Your task to perform on an android device: Open the calendar app, open the side menu, and click the "Day" option Image 0: 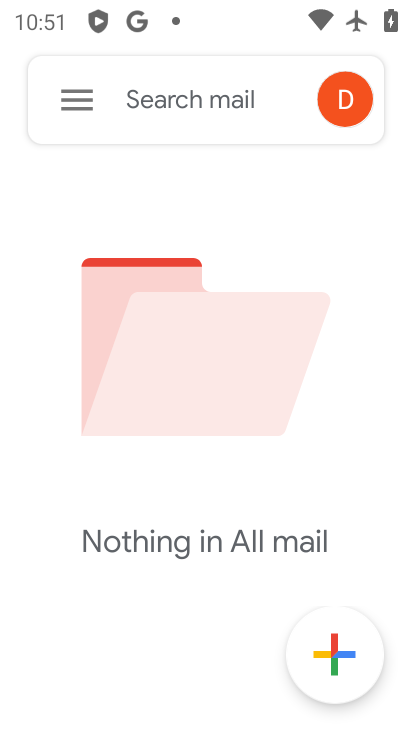
Step 0: press home button
Your task to perform on an android device: Open the calendar app, open the side menu, and click the "Day" option Image 1: 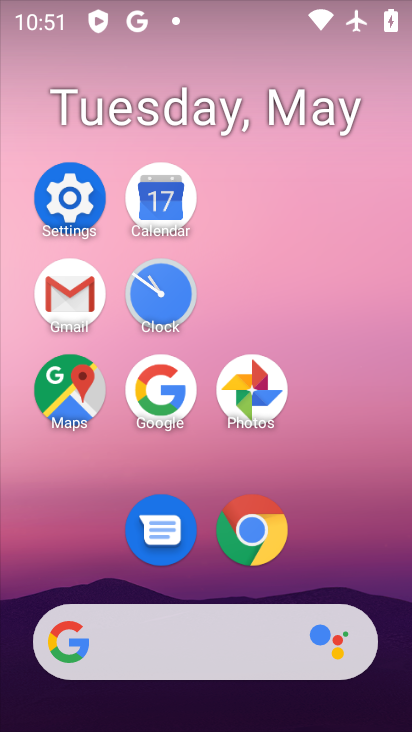
Step 1: click (165, 210)
Your task to perform on an android device: Open the calendar app, open the side menu, and click the "Day" option Image 2: 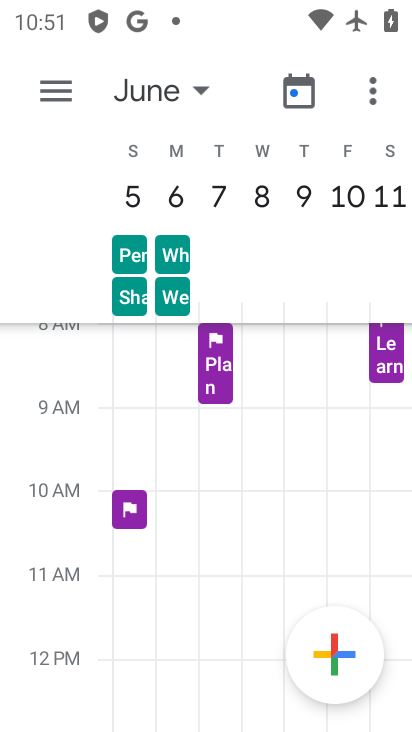
Step 2: click (35, 84)
Your task to perform on an android device: Open the calendar app, open the side menu, and click the "Day" option Image 3: 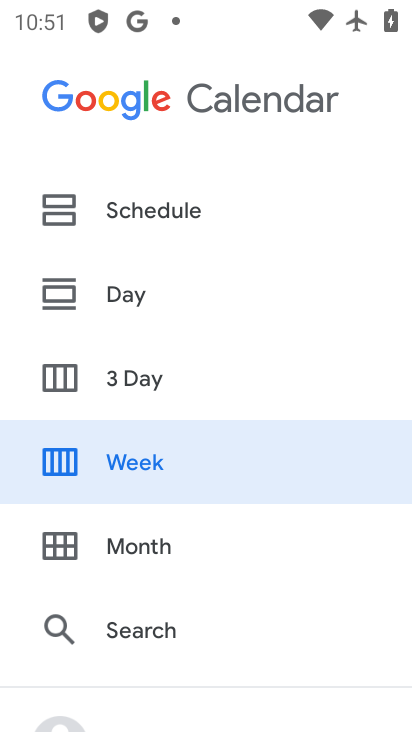
Step 3: click (141, 308)
Your task to perform on an android device: Open the calendar app, open the side menu, and click the "Day" option Image 4: 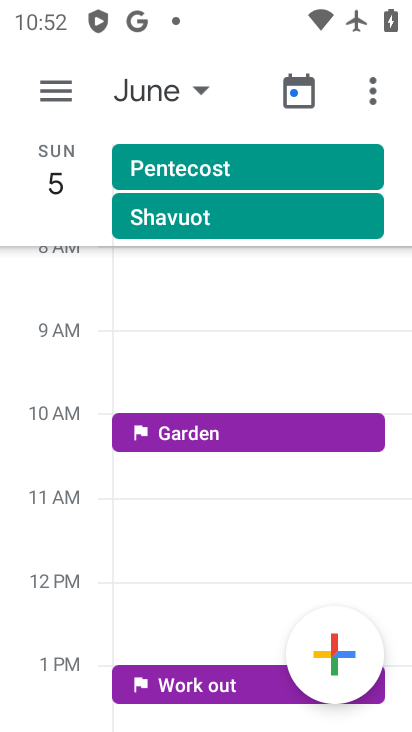
Step 4: click (52, 99)
Your task to perform on an android device: Open the calendar app, open the side menu, and click the "Day" option Image 5: 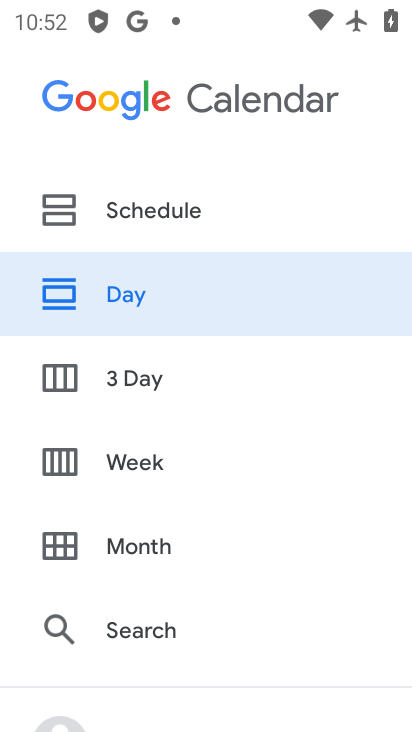
Step 5: click (171, 303)
Your task to perform on an android device: Open the calendar app, open the side menu, and click the "Day" option Image 6: 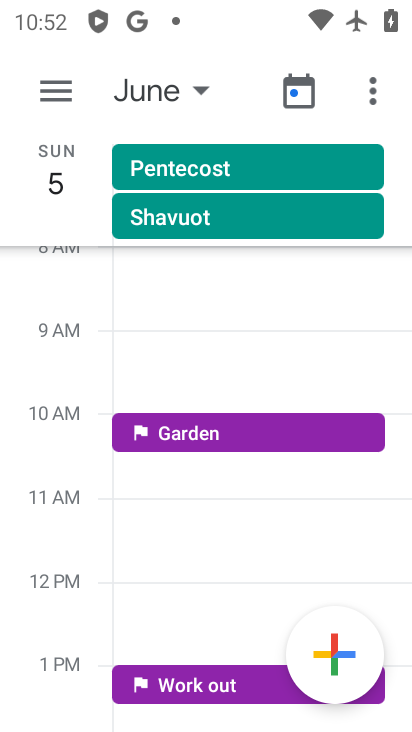
Step 6: task complete